Your task to perform on an android device: Open privacy settings Image 0: 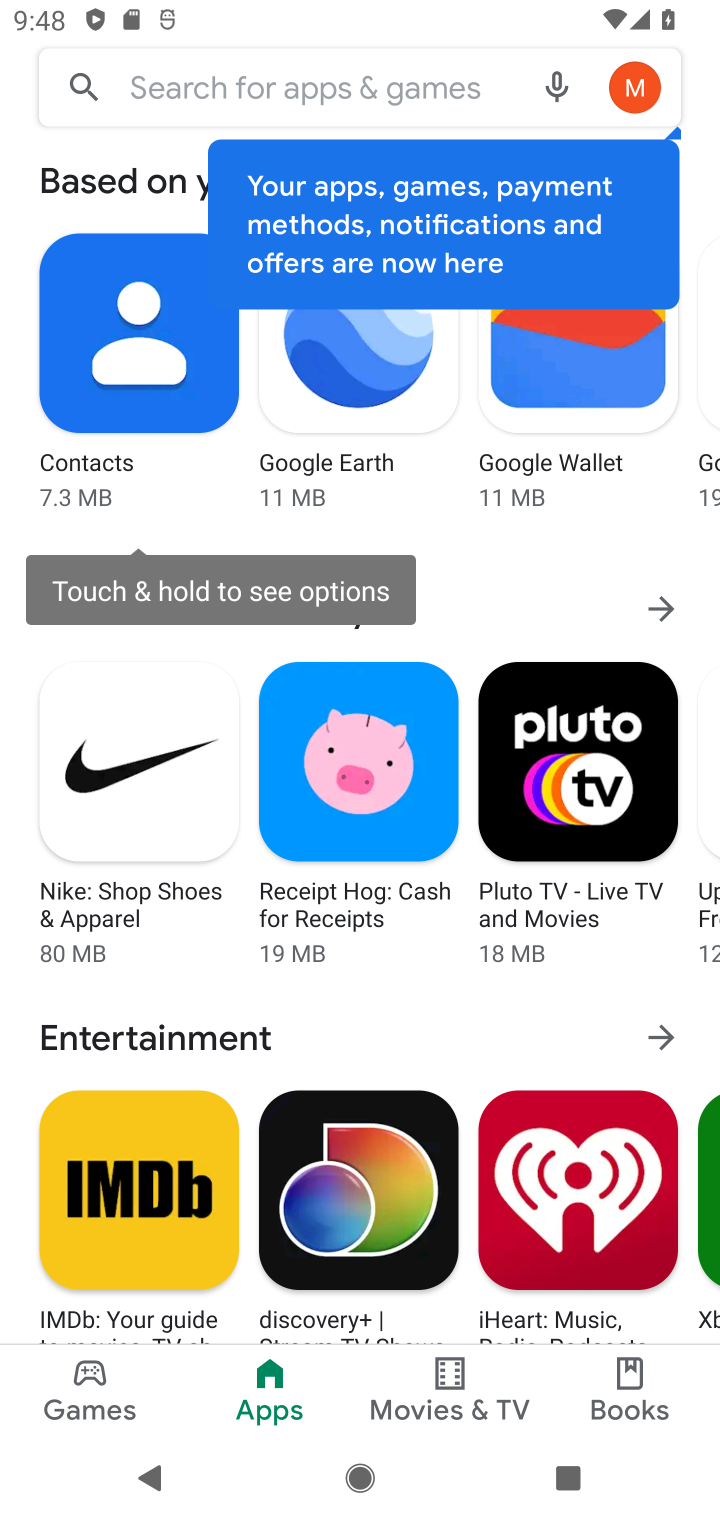
Step 0: press home button
Your task to perform on an android device: Open privacy settings Image 1: 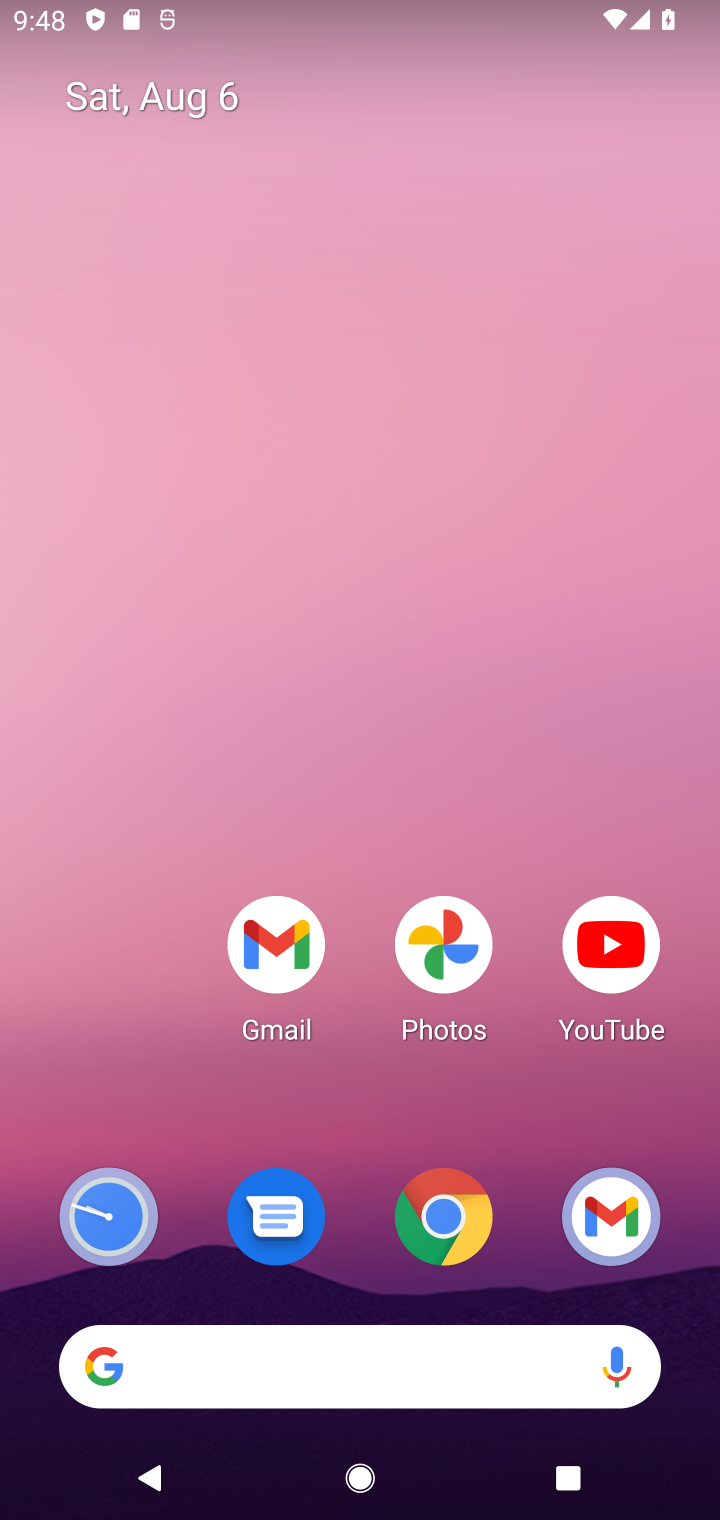
Step 1: drag from (276, 1231) to (276, 432)
Your task to perform on an android device: Open privacy settings Image 2: 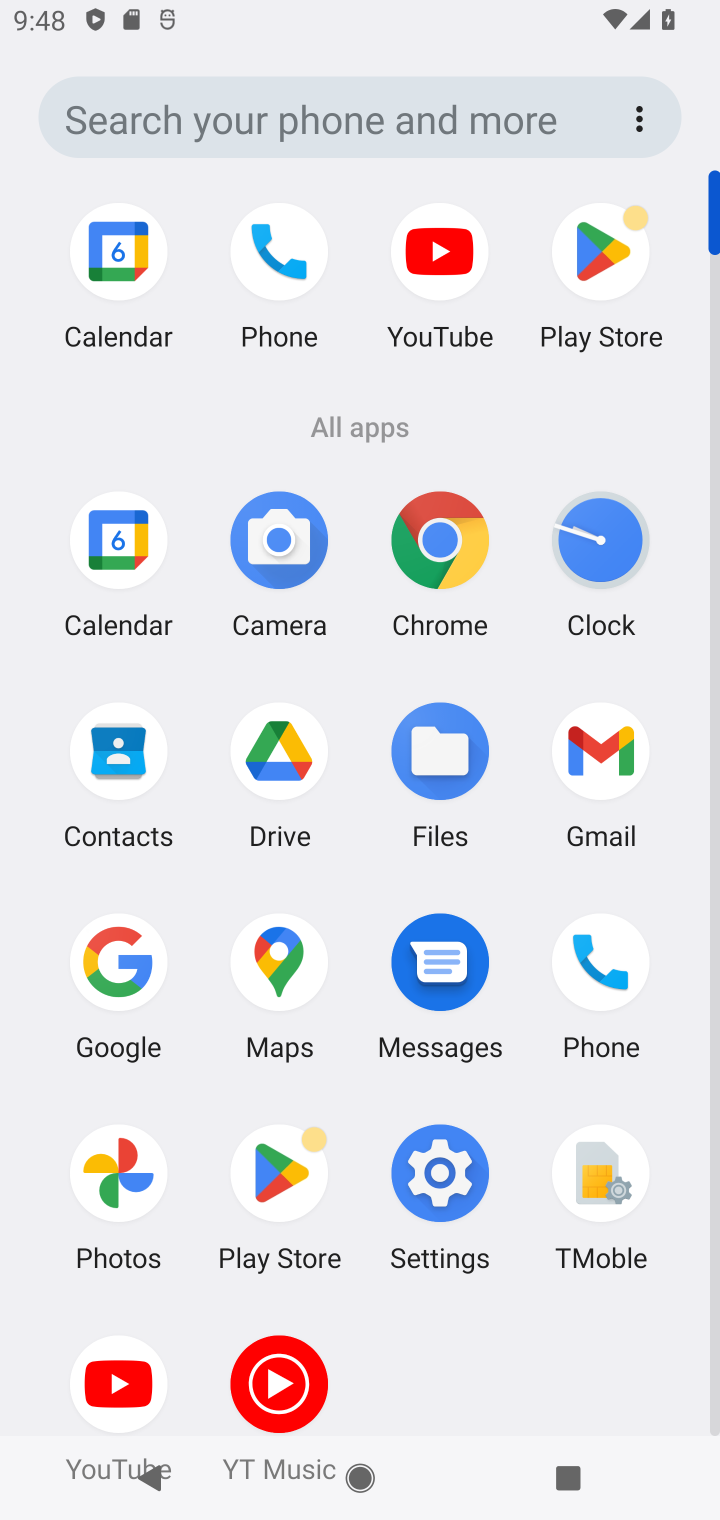
Step 2: click (436, 1193)
Your task to perform on an android device: Open privacy settings Image 3: 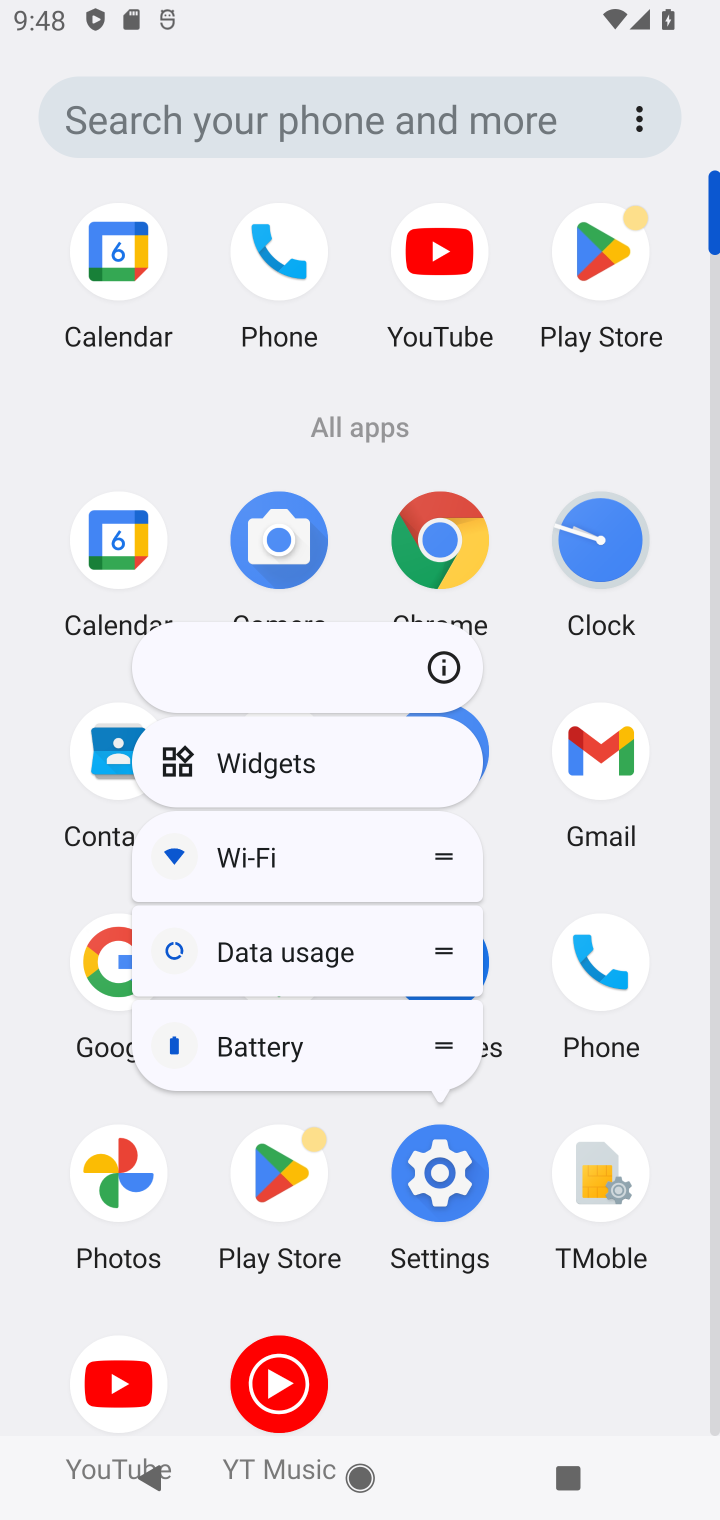
Step 3: click (436, 1193)
Your task to perform on an android device: Open privacy settings Image 4: 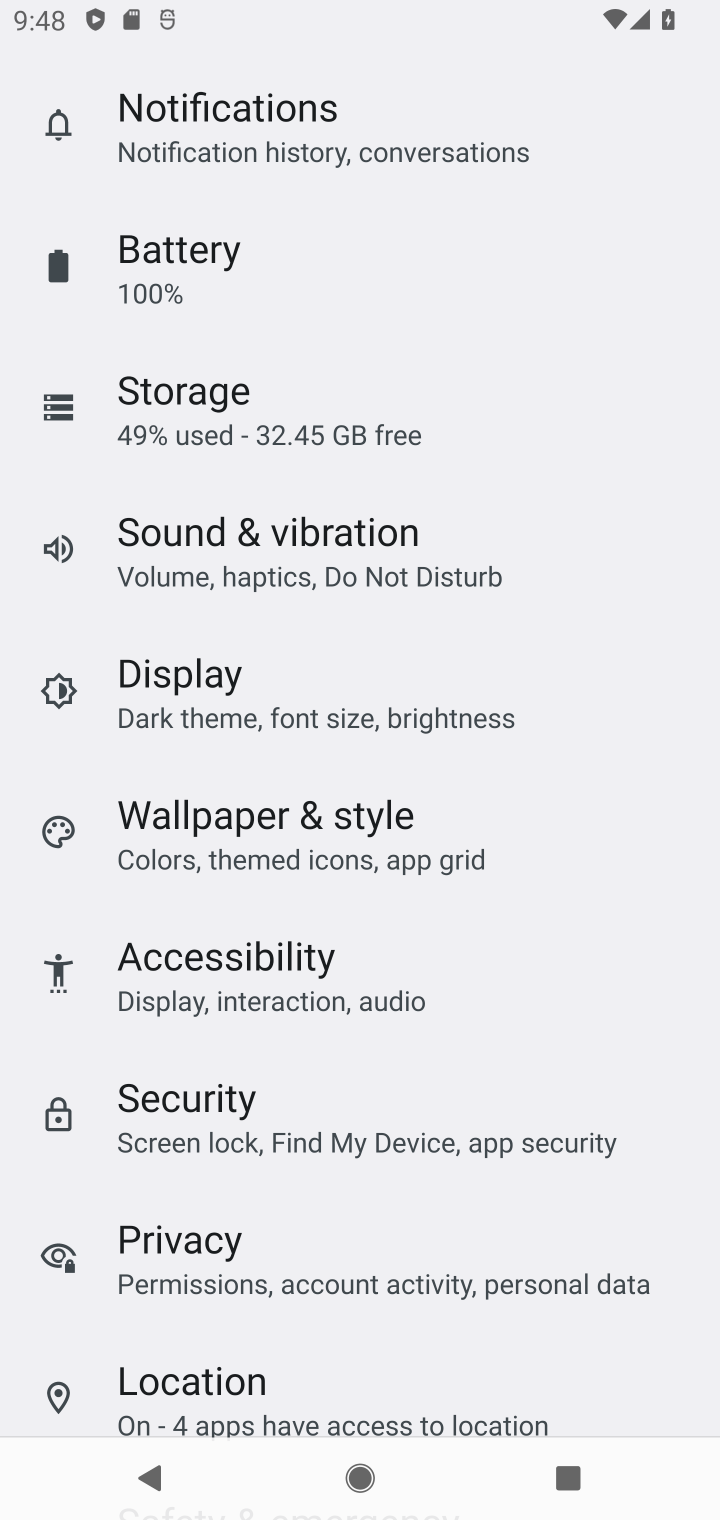
Step 4: click (168, 1254)
Your task to perform on an android device: Open privacy settings Image 5: 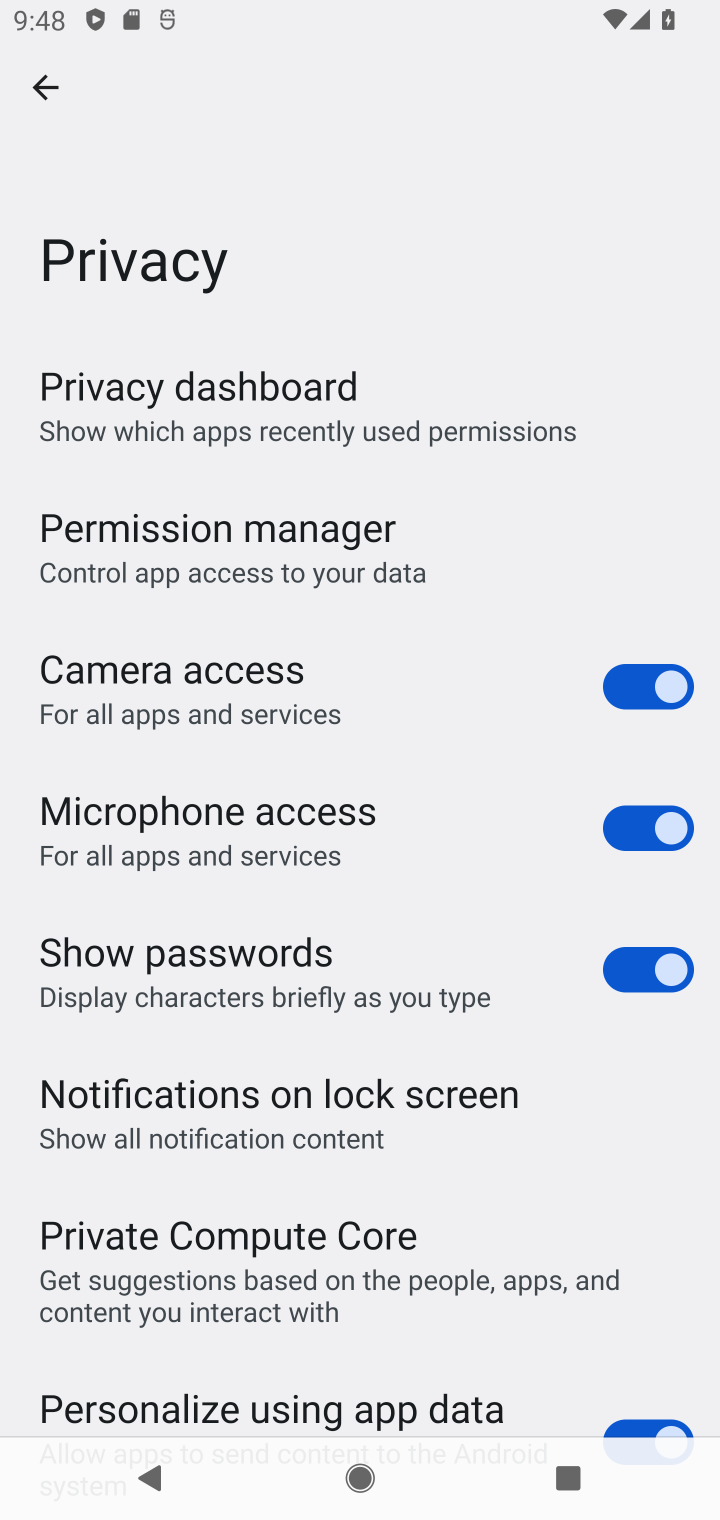
Step 5: task complete